Your task to perform on an android device: Open privacy settings Image 0: 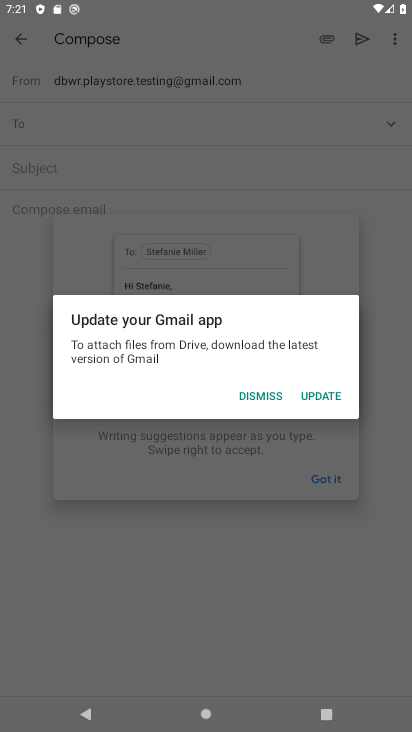
Step 0: press home button
Your task to perform on an android device: Open privacy settings Image 1: 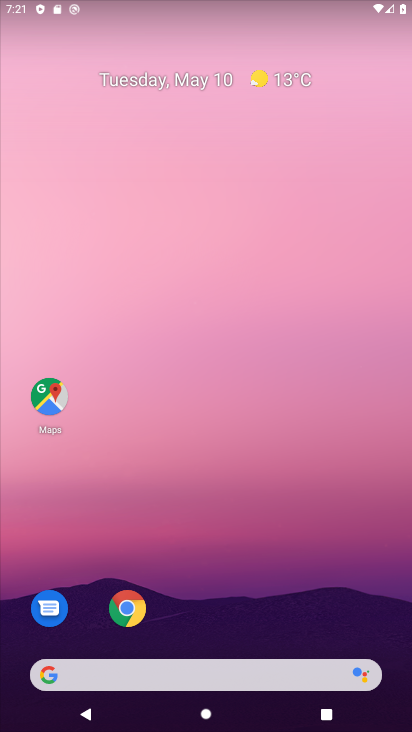
Step 1: drag from (212, 619) to (265, 23)
Your task to perform on an android device: Open privacy settings Image 2: 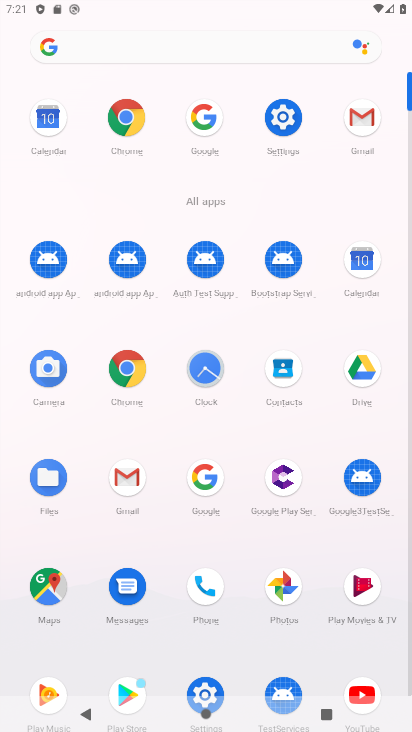
Step 2: click (282, 140)
Your task to perform on an android device: Open privacy settings Image 3: 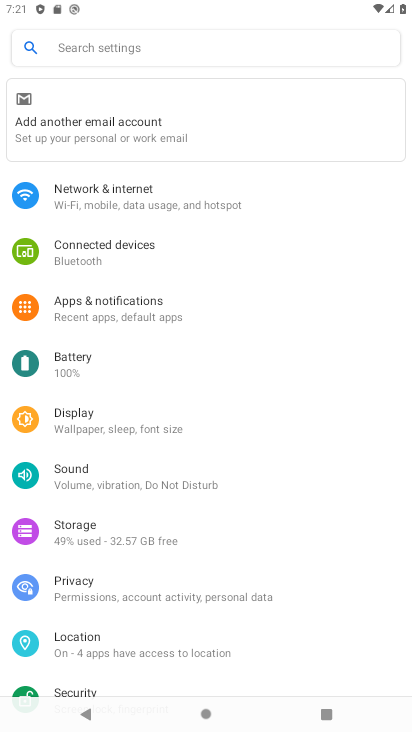
Step 3: click (61, 598)
Your task to perform on an android device: Open privacy settings Image 4: 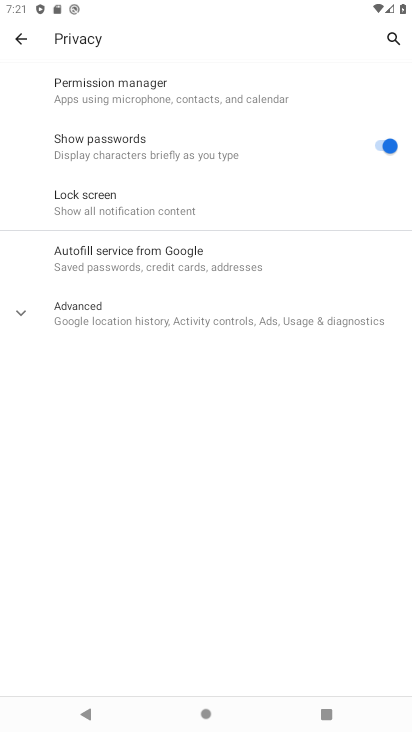
Step 4: task complete